Your task to perform on an android device: Open Reddit.com Image 0: 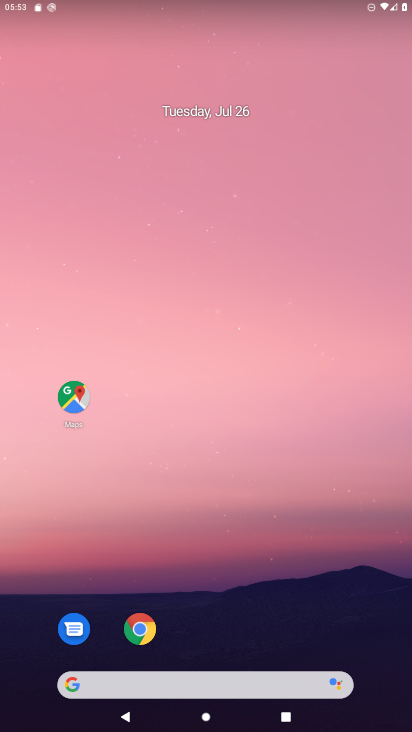
Step 0: click (138, 630)
Your task to perform on an android device: Open Reddit.com Image 1: 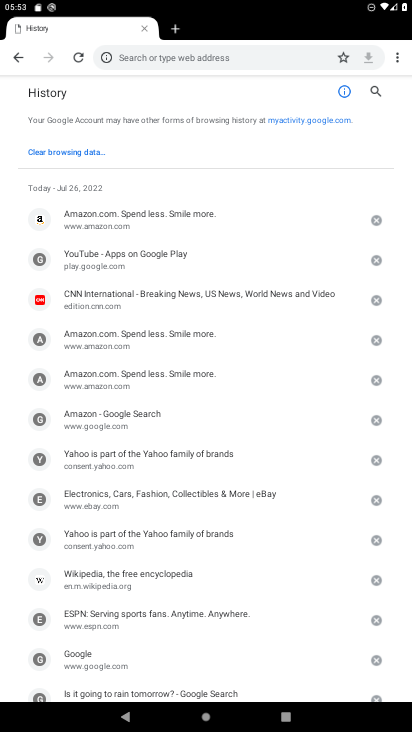
Step 1: click (138, 60)
Your task to perform on an android device: Open Reddit.com Image 2: 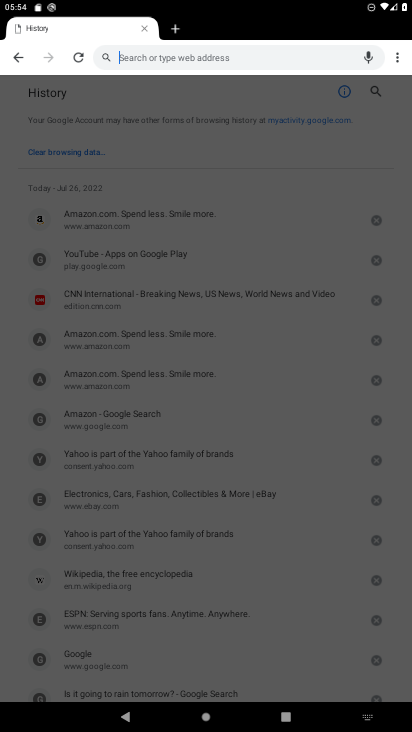
Step 2: type "www.reddit.com"
Your task to perform on an android device: Open Reddit.com Image 3: 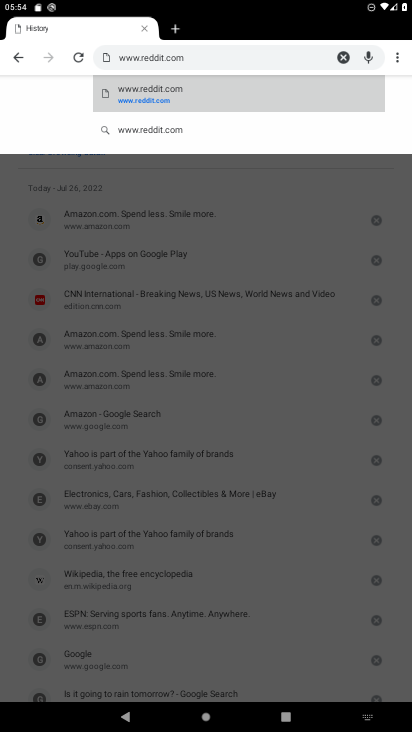
Step 3: click (140, 94)
Your task to perform on an android device: Open Reddit.com Image 4: 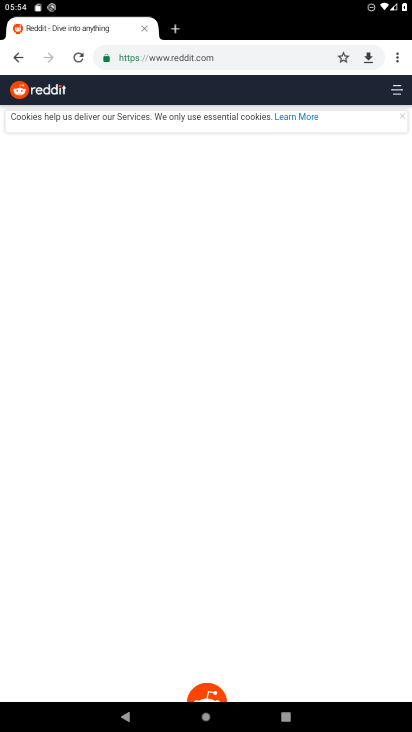
Step 4: task complete